Your task to perform on an android device: When is my next meeting? Image 0: 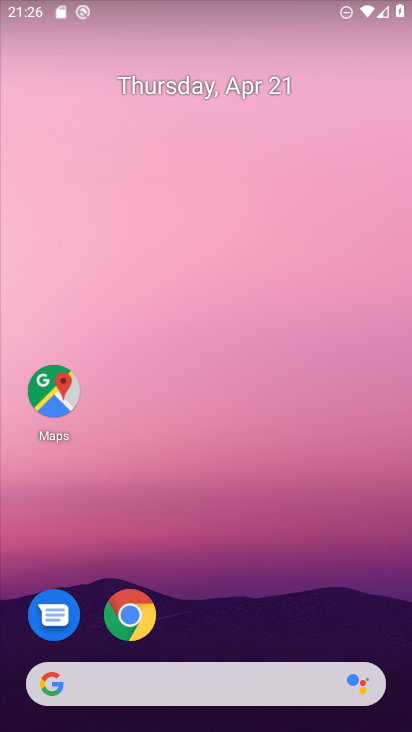
Step 0: drag from (237, 611) to (311, 206)
Your task to perform on an android device: When is my next meeting? Image 1: 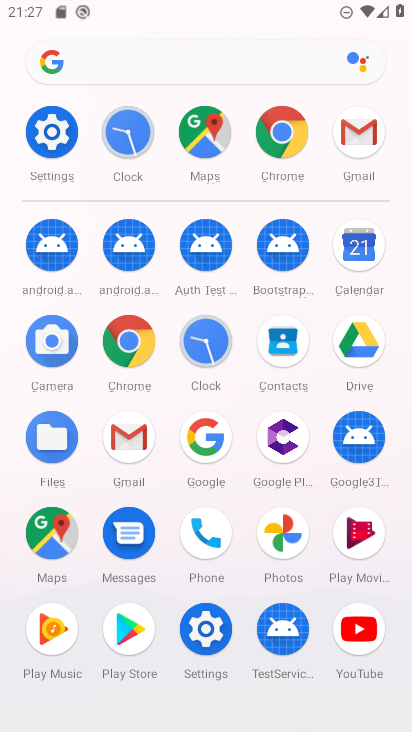
Step 1: click (361, 248)
Your task to perform on an android device: When is my next meeting? Image 2: 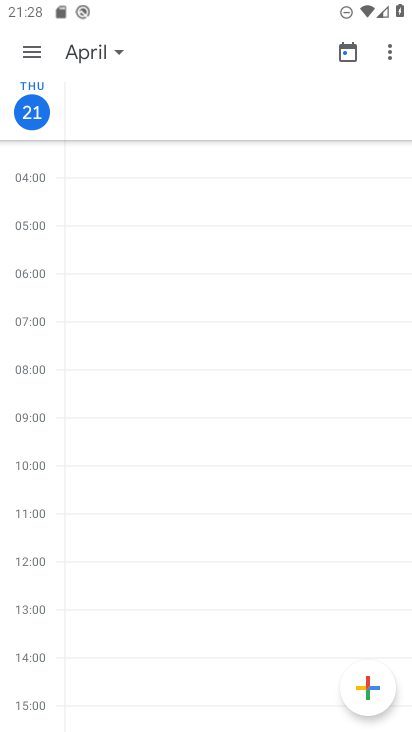
Step 2: click (107, 45)
Your task to perform on an android device: When is my next meeting? Image 3: 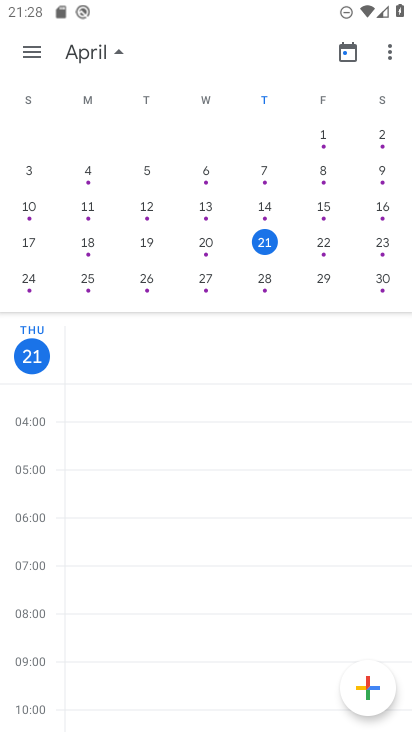
Step 3: click (271, 242)
Your task to perform on an android device: When is my next meeting? Image 4: 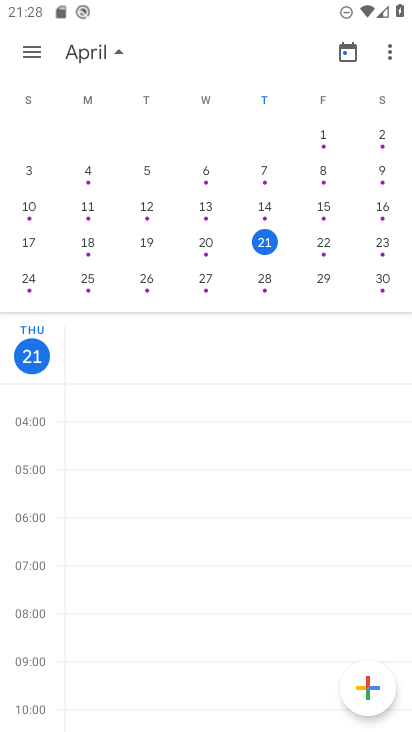
Step 4: drag from (231, 655) to (334, 175)
Your task to perform on an android device: When is my next meeting? Image 5: 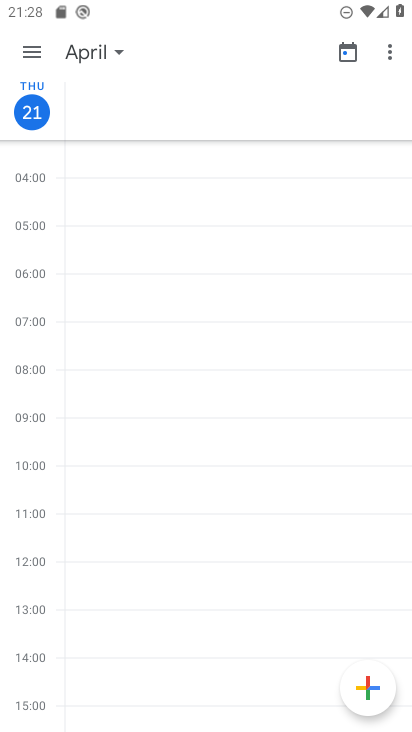
Step 5: drag from (234, 588) to (254, 321)
Your task to perform on an android device: When is my next meeting? Image 6: 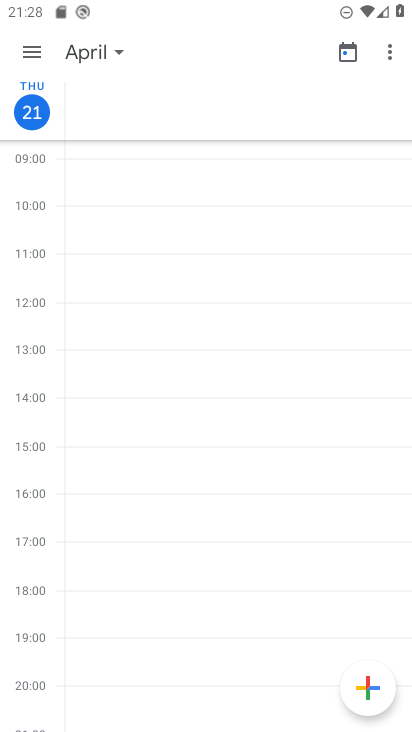
Step 6: drag from (204, 647) to (237, 139)
Your task to perform on an android device: When is my next meeting? Image 7: 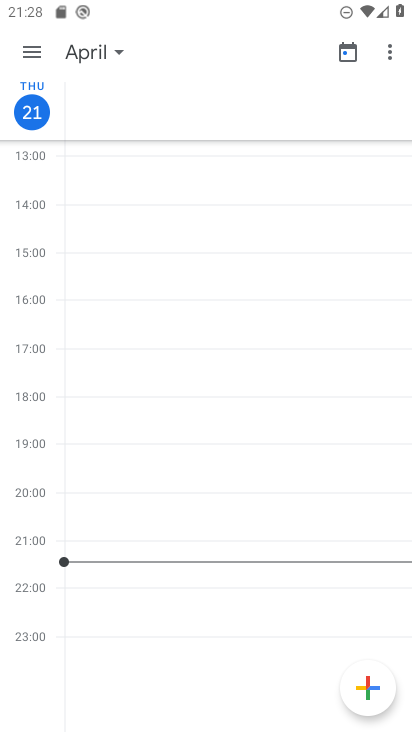
Step 7: drag from (211, 523) to (270, 42)
Your task to perform on an android device: When is my next meeting? Image 8: 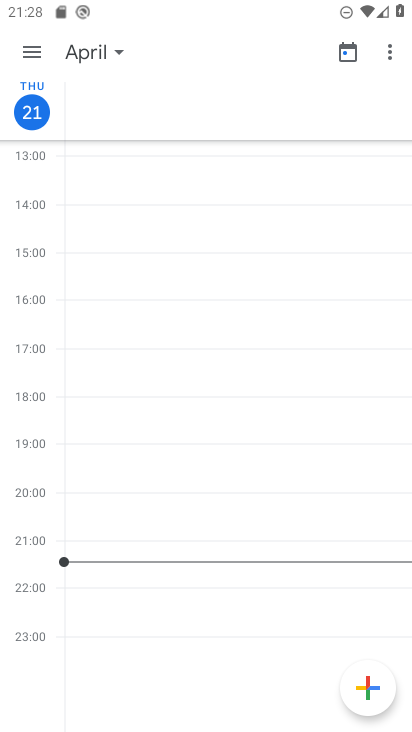
Step 8: drag from (172, 646) to (228, 157)
Your task to perform on an android device: When is my next meeting? Image 9: 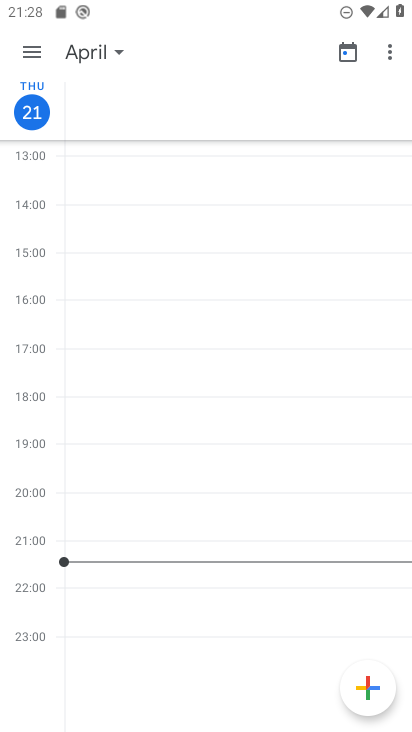
Step 9: click (148, 103)
Your task to perform on an android device: When is my next meeting? Image 10: 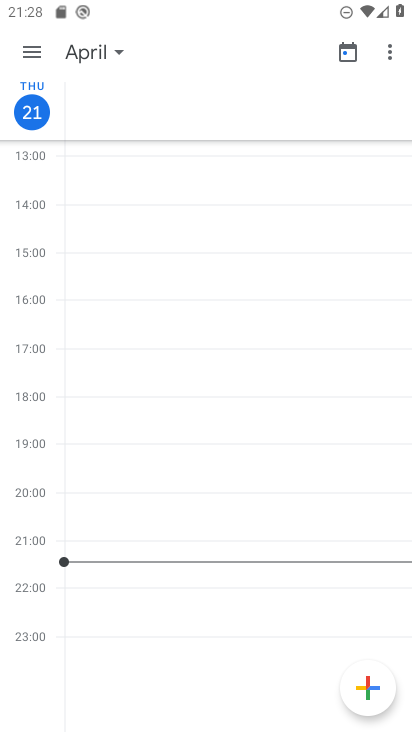
Step 10: task complete